Your task to perform on an android device: Go to CNN.com Image 0: 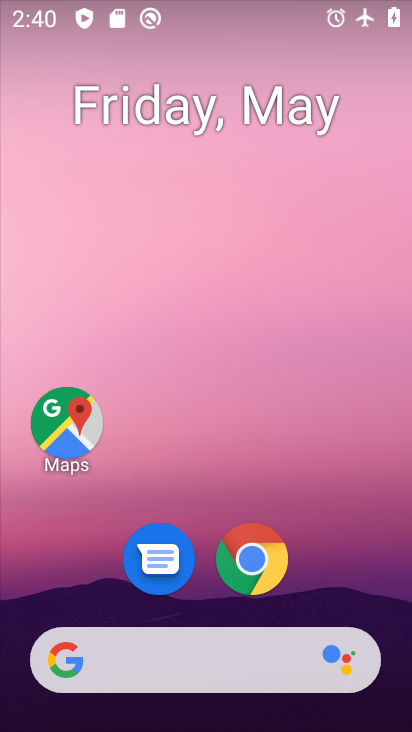
Step 0: click (331, 593)
Your task to perform on an android device: Go to CNN.com Image 1: 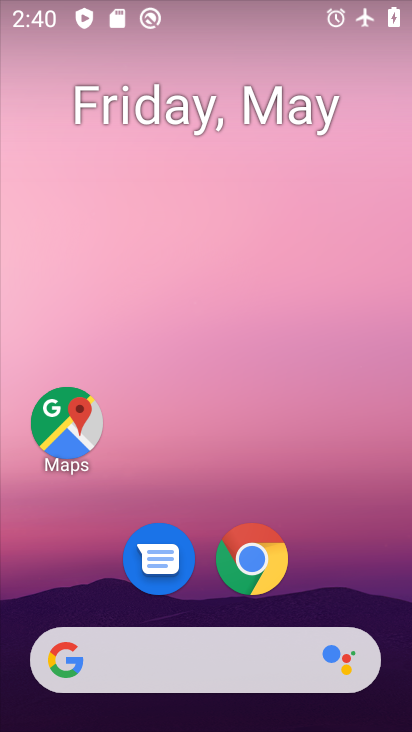
Step 1: click (217, 674)
Your task to perform on an android device: Go to CNN.com Image 2: 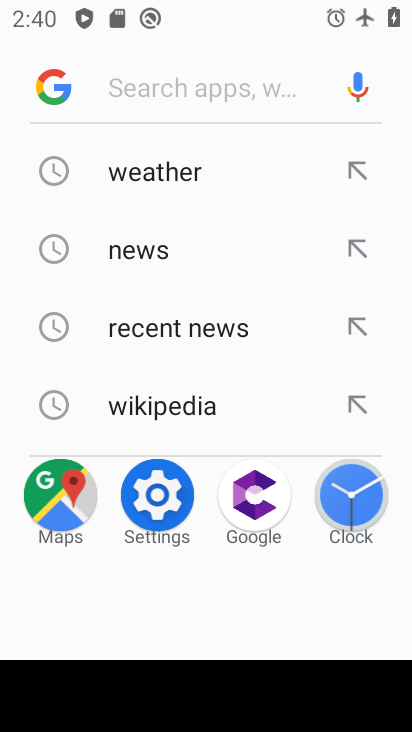
Step 2: type "cnn.com"
Your task to perform on an android device: Go to CNN.com Image 3: 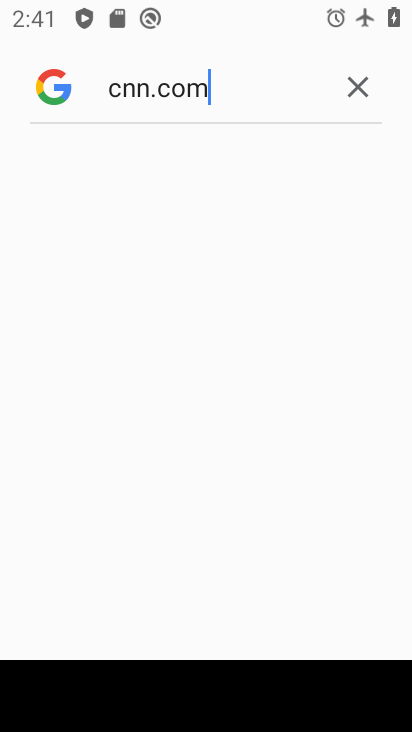
Step 3: task complete